Your task to perform on an android device: install app "Google Maps" Image 0: 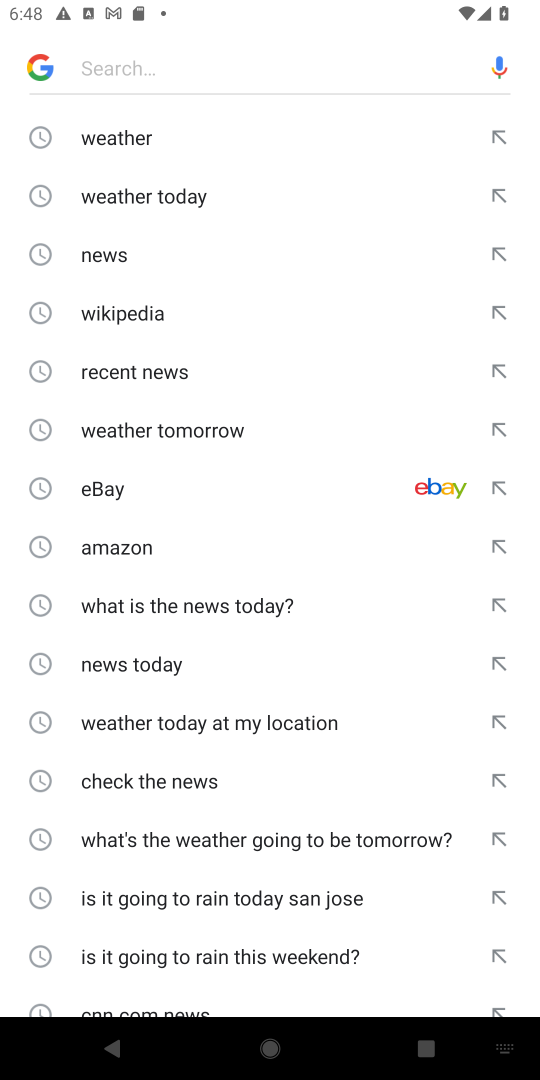
Step 0: press home button
Your task to perform on an android device: install app "Google Maps" Image 1: 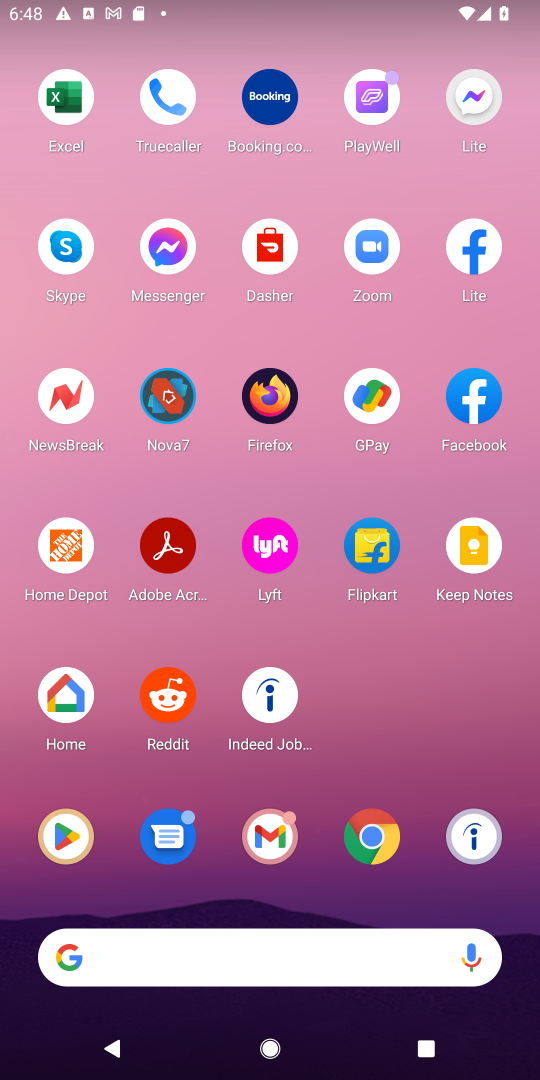
Step 1: press home button
Your task to perform on an android device: install app "Google Maps" Image 2: 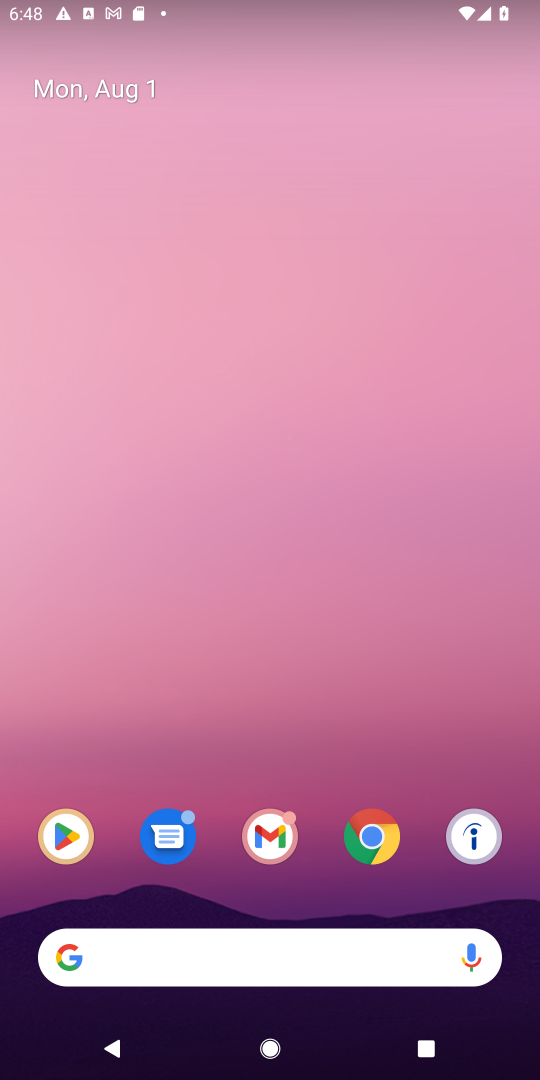
Step 2: click (71, 833)
Your task to perform on an android device: install app "Google Maps" Image 3: 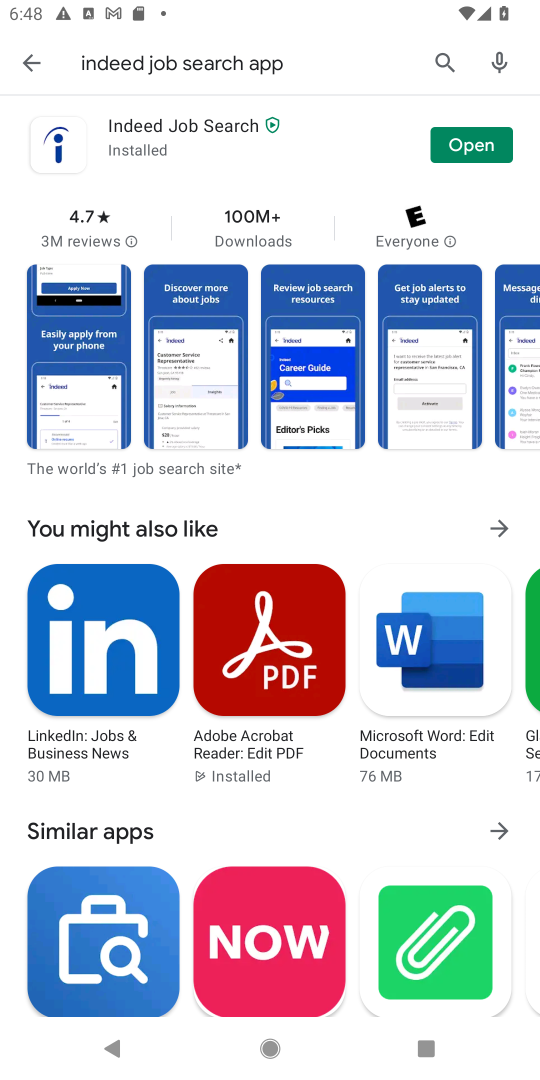
Step 3: click (441, 58)
Your task to perform on an android device: install app "Google Maps" Image 4: 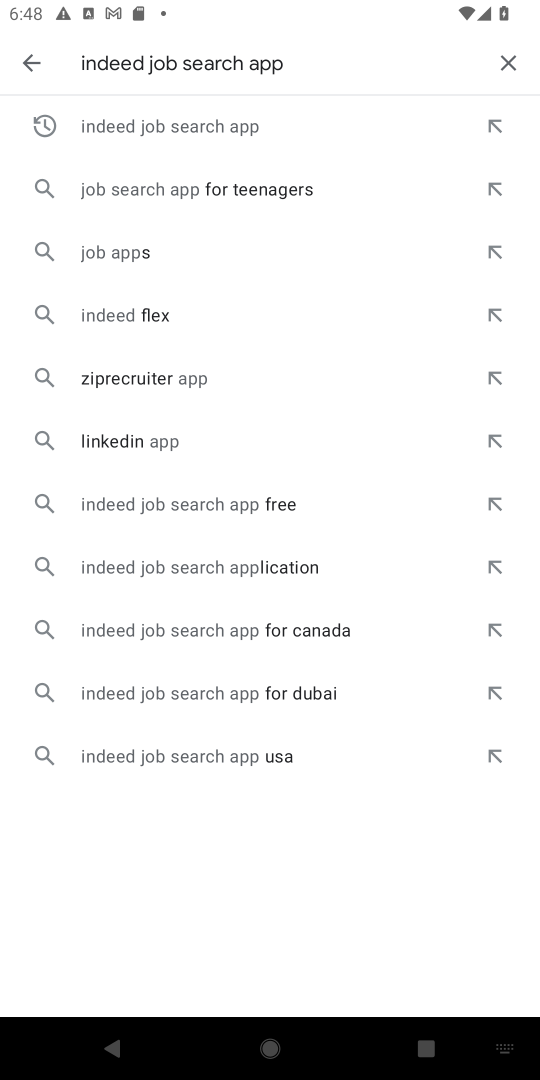
Step 4: click (509, 56)
Your task to perform on an android device: install app "Google Maps" Image 5: 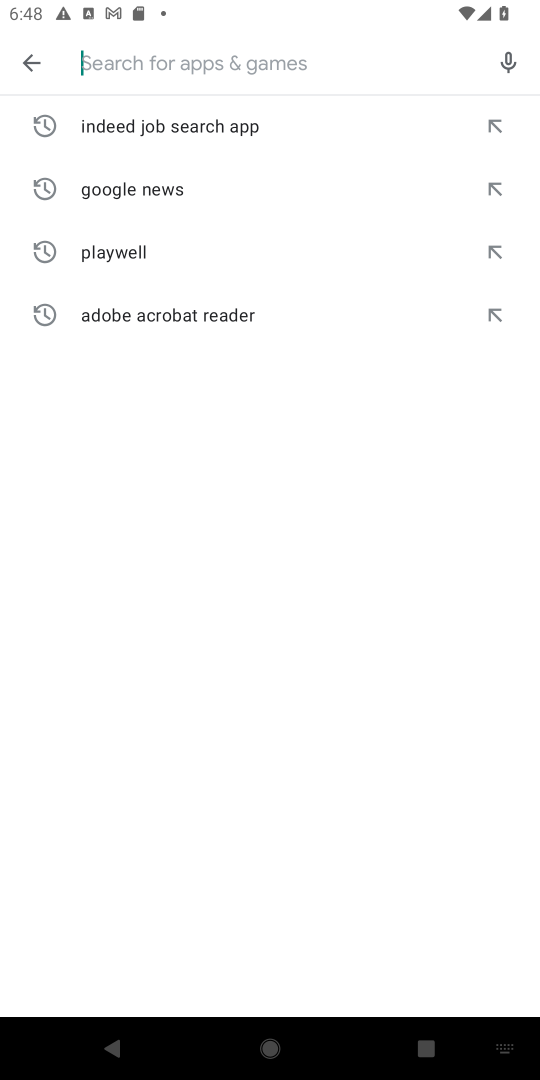
Step 5: type "Google Maps"
Your task to perform on an android device: install app "Google Maps" Image 6: 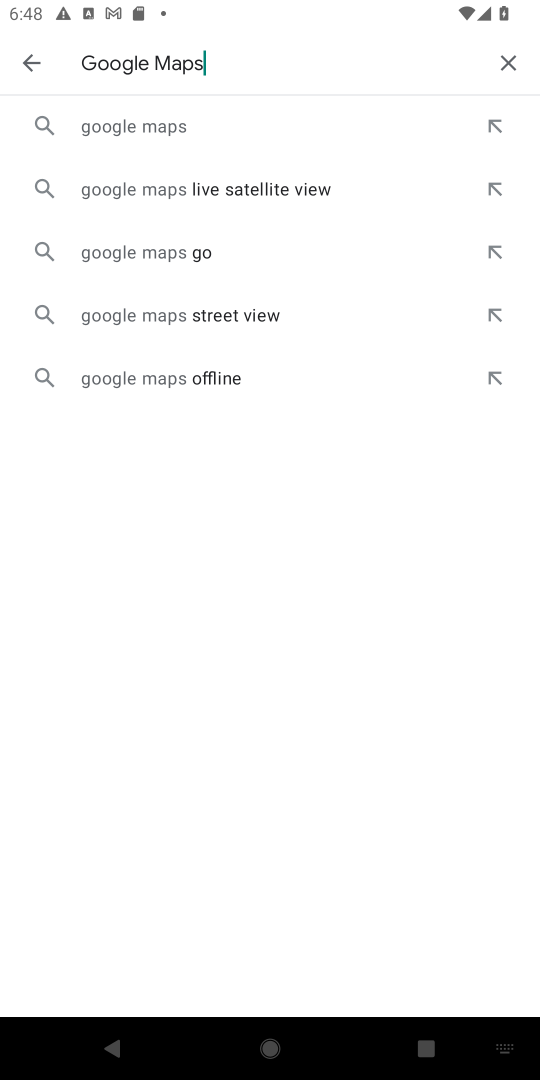
Step 6: click (164, 130)
Your task to perform on an android device: install app "Google Maps" Image 7: 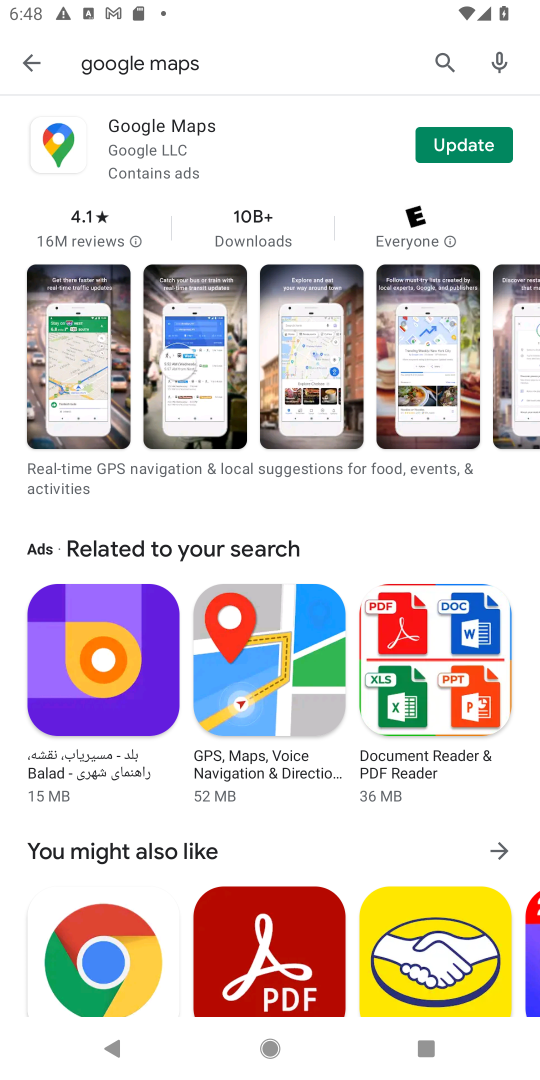
Step 7: click (168, 152)
Your task to perform on an android device: install app "Google Maps" Image 8: 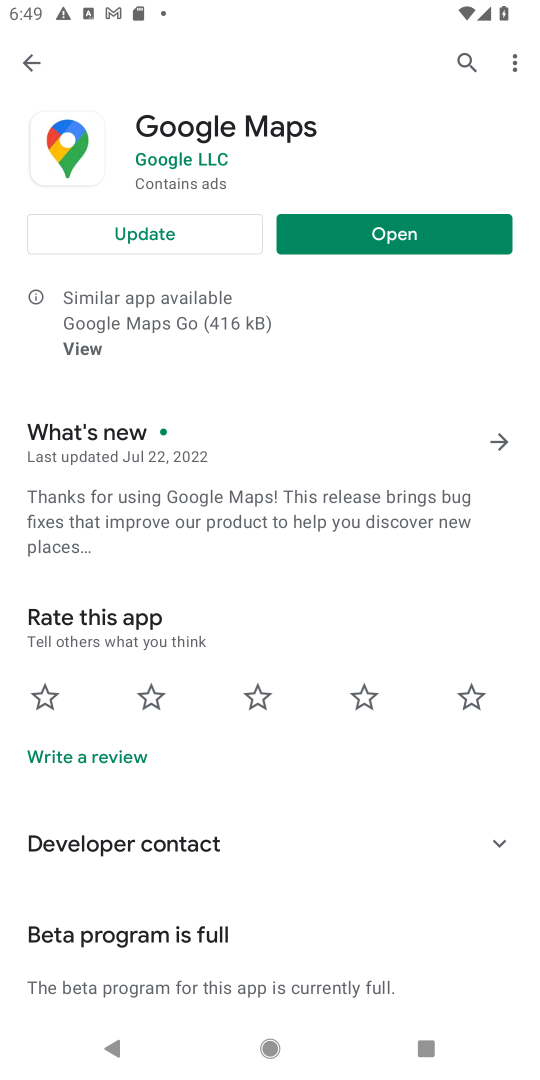
Step 8: task complete